Your task to perform on an android device: open app "Contacts" Image 0: 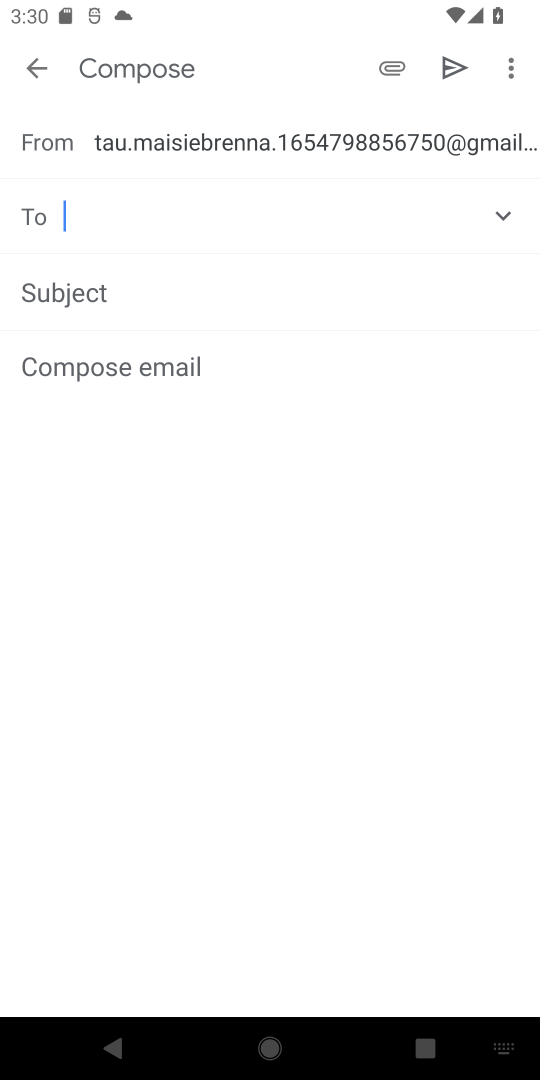
Step 0: press back button
Your task to perform on an android device: open app "Contacts" Image 1: 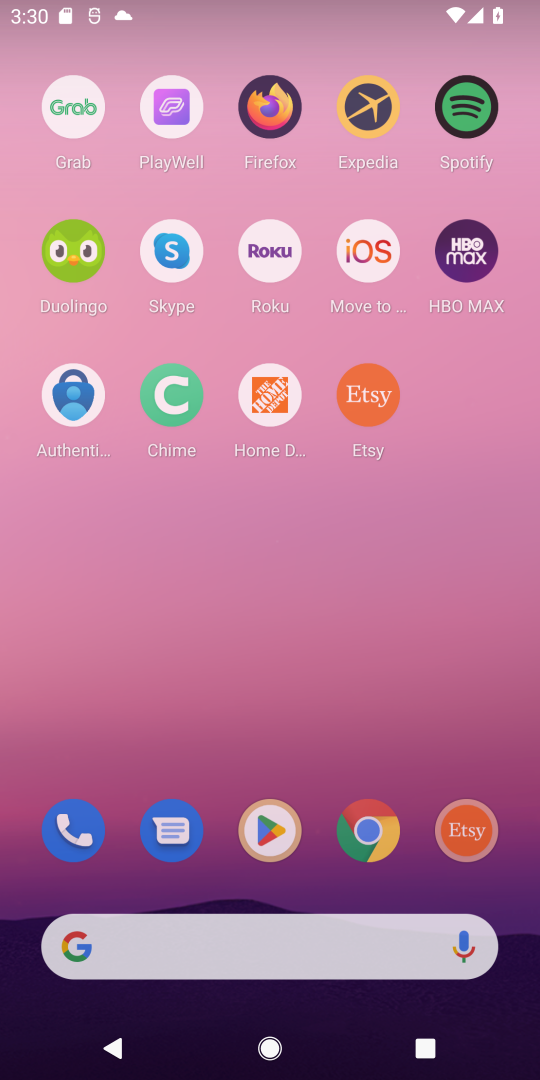
Step 1: press home button
Your task to perform on an android device: open app "Contacts" Image 2: 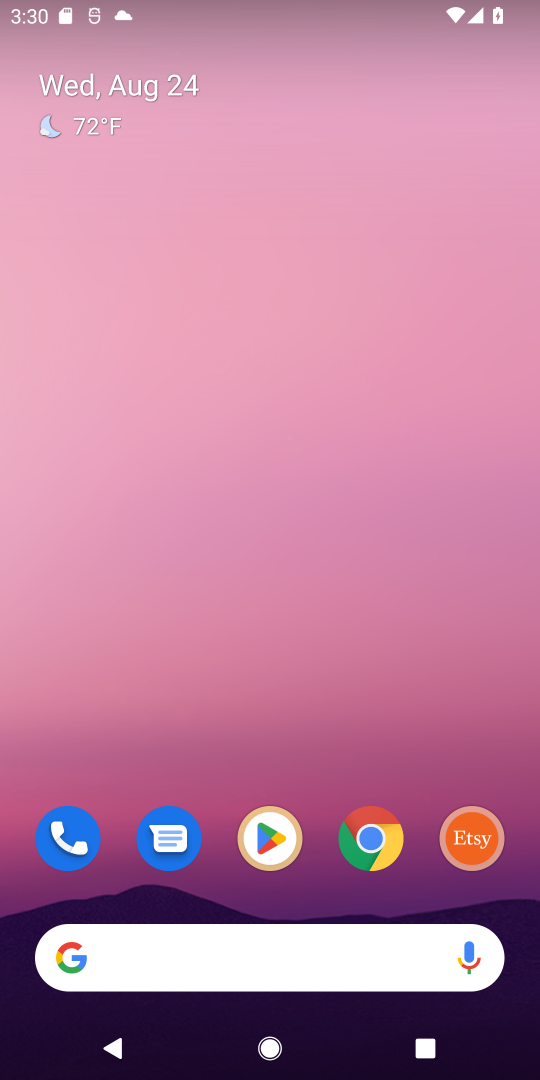
Step 2: drag from (215, 894) to (12, 172)
Your task to perform on an android device: open app "Contacts" Image 3: 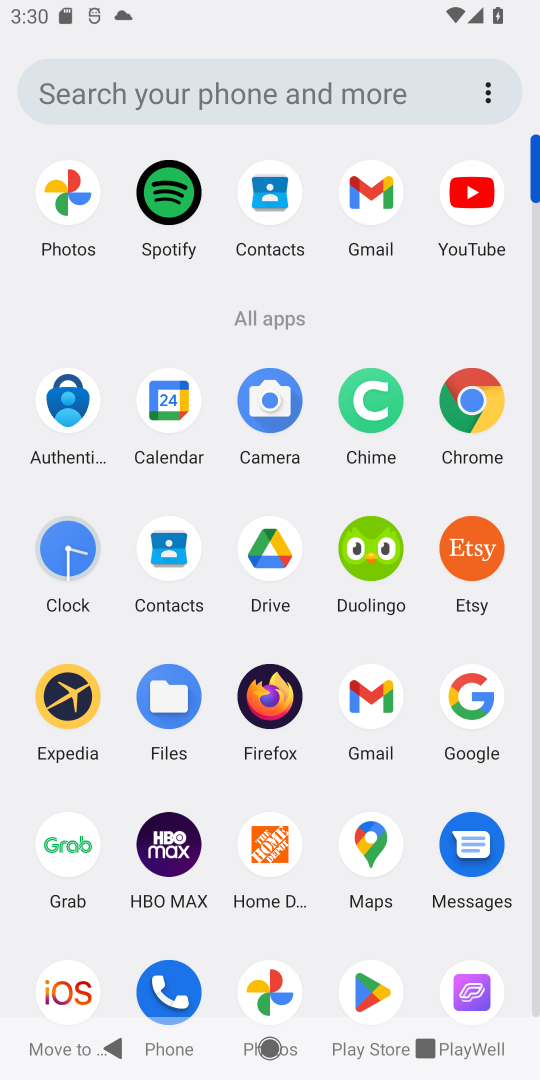
Step 3: click (181, 628)
Your task to perform on an android device: open app "Contacts" Image 4: 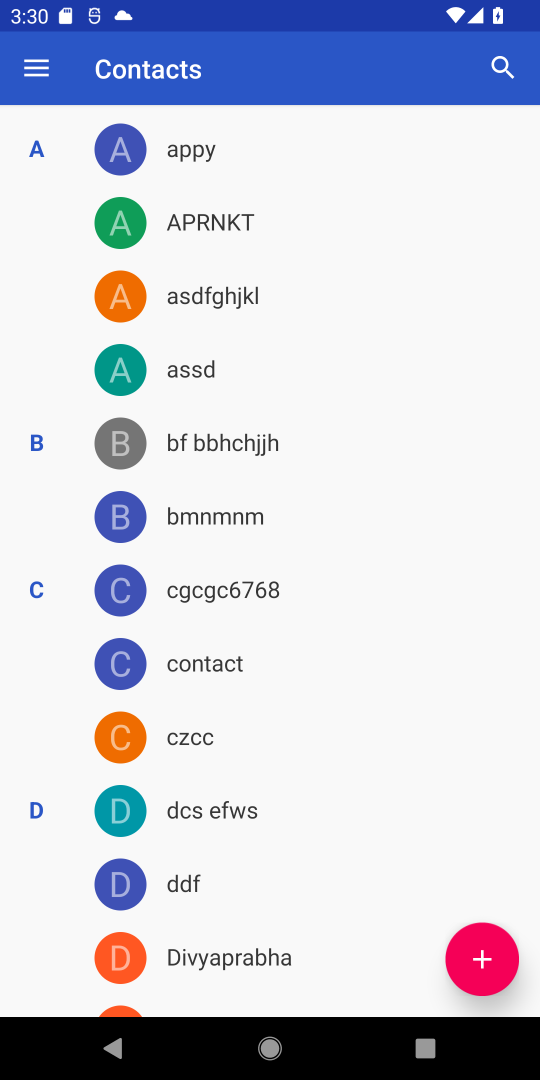
Step 4: task complete